Your task to perform on an android device: Go to display settings Image 0: 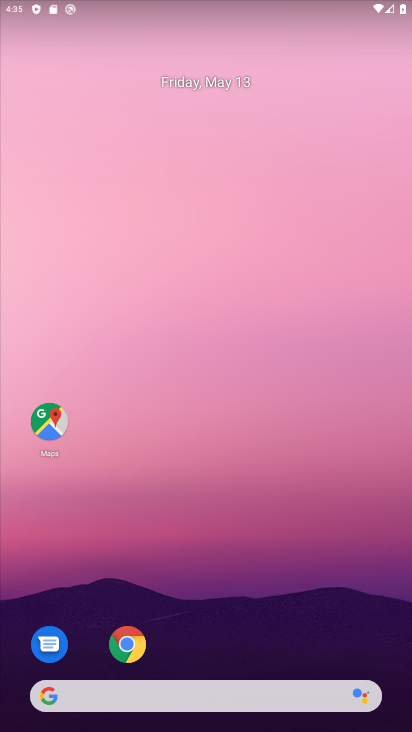
Step 0: drag from (223, 601) to (237, 55)
Your task to perform on an android device: Go to display settings Image 1: 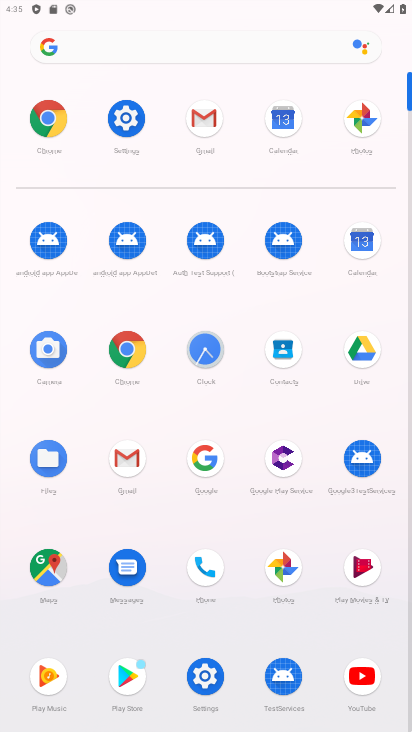
Step 1: click (113, 117)
Your task to perform on an android device: Go to display settings Image 2: 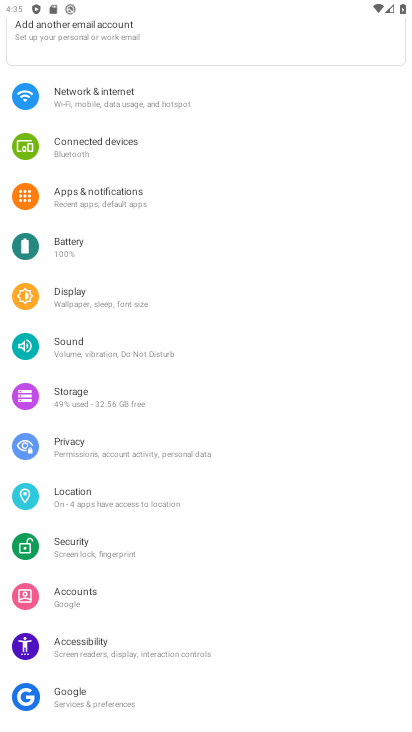
Step 2: click (135, 303)
Your task to perform on an android device: Go to display settings Image 3: 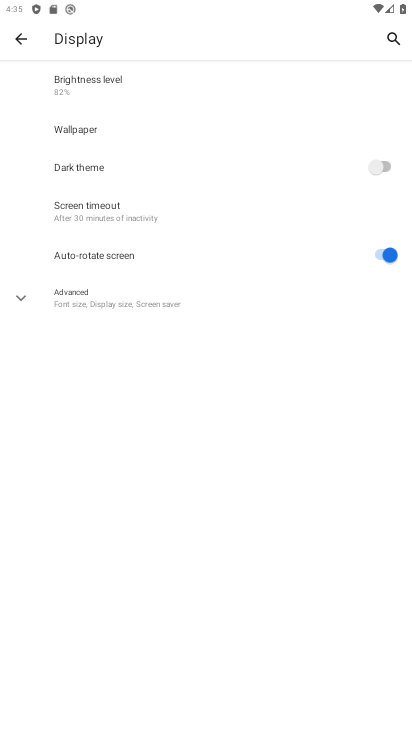
Step 3: task complete